Your task to perform on an android device: set default search engine in the chrome app Image 0: 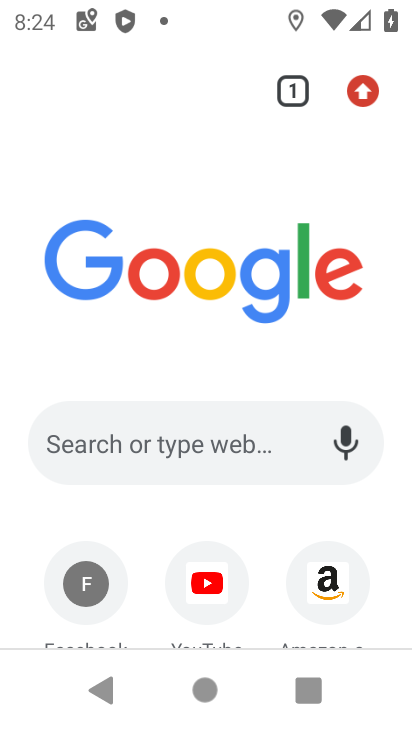
Step 0: click (371, 96)
Your task to perform on an android device: set default search engine in the chrome app Image 1: 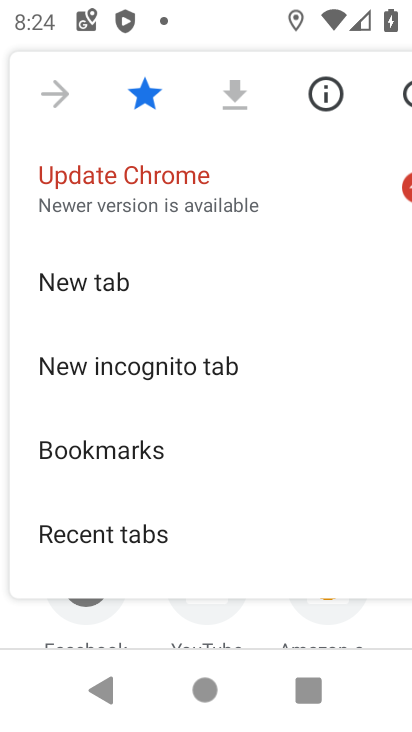
Step 1: drag from (173, 450) to (179, 113)
Your task to perform on an android device: set default search engine in the chrome app Image 2: 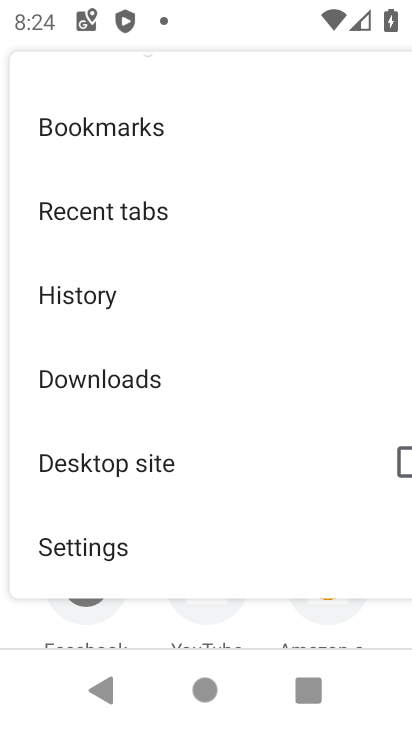
Step 2: drag from (161, 489) to (156, 302)
Your task to perform on an android device: set default search engine in the chrome app Image 3: 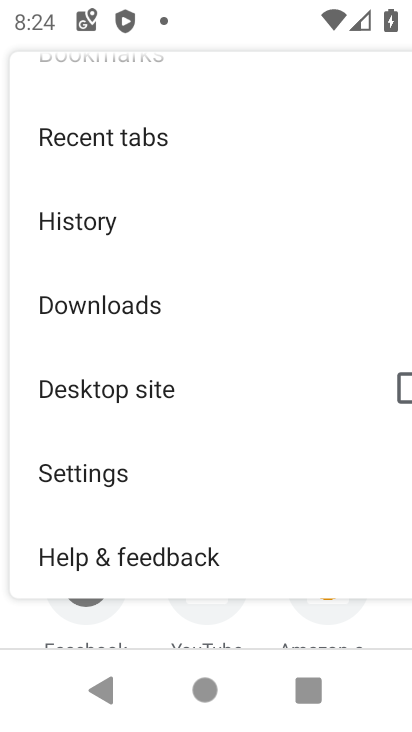
Step 3: click (89, 479)
Your task to perform on an android device: set default search engine in the chrome app Image 4: 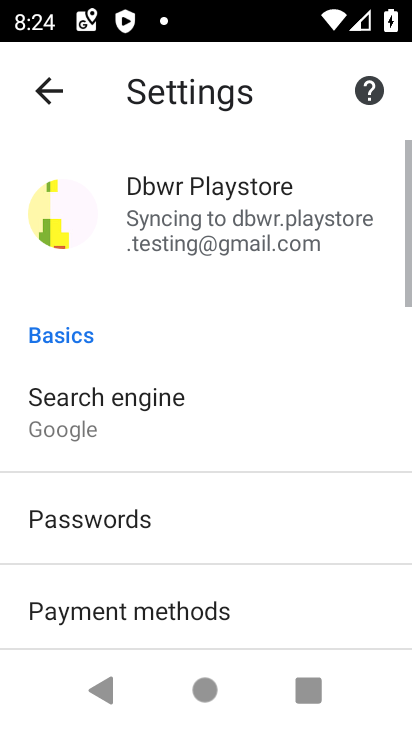
Step 4: drag from (114, 585) to (125, 447)
Your task to perform on an android device: set default search engine in the chrome app Image 5: 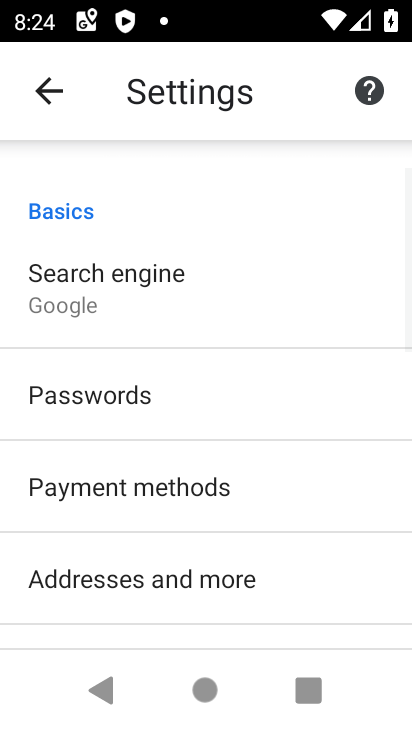
Step 5: click (97, 292)
Your task to perform on an android device: set default search engine in the chrome app Image 6: 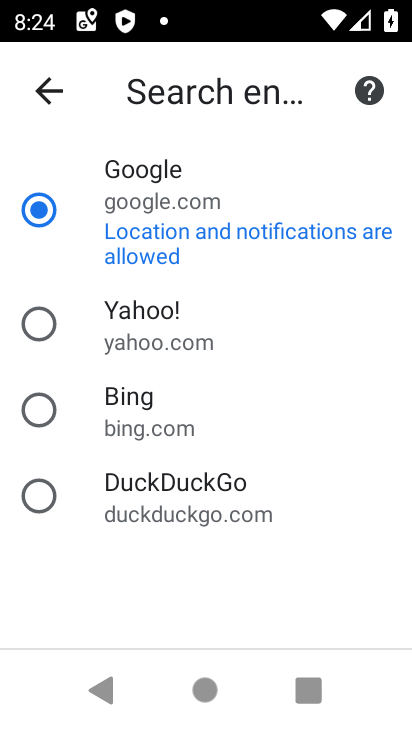
Step 6: click (47, 410)
Your task to perform on an android device: set default search engine in the chrome app Image 7: 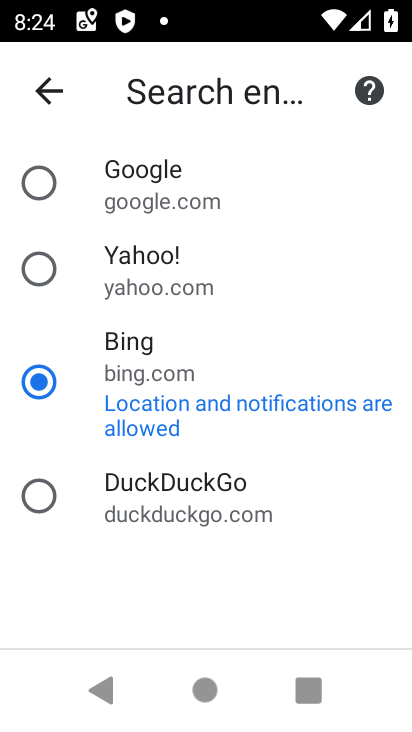
Step 7: task complete